Your task to perform on an android device: What's the weather today? Image 0: 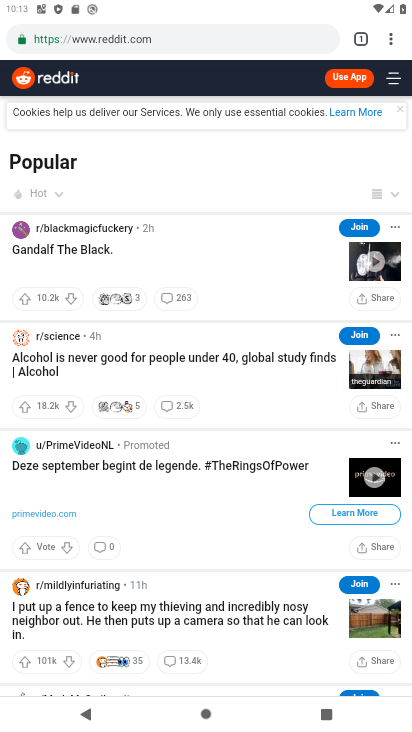
Step 0: press home button
Your task to perform on an android device: What's the weather today? Image 1: 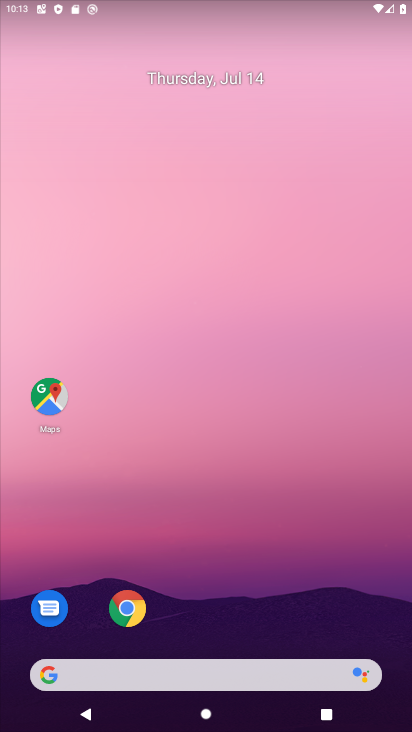
Step 1: click (222, 674)
Your task to perform on an android device: What's the weather today? Image 2: 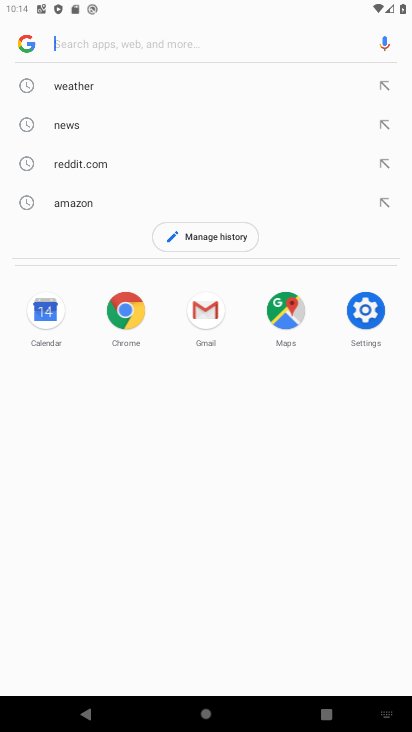
Step 2: click (54, 86)
Your task to perform on an android device: What's the weather today? Image 3: 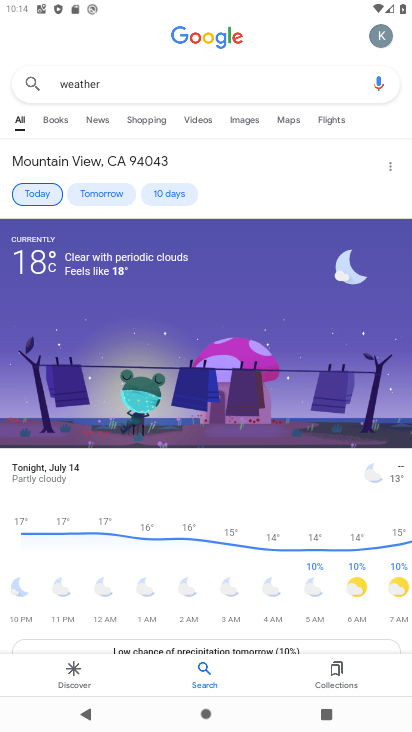
Step 3: task complete